Your task to perform on an android device: set the stopwatch Image 0: 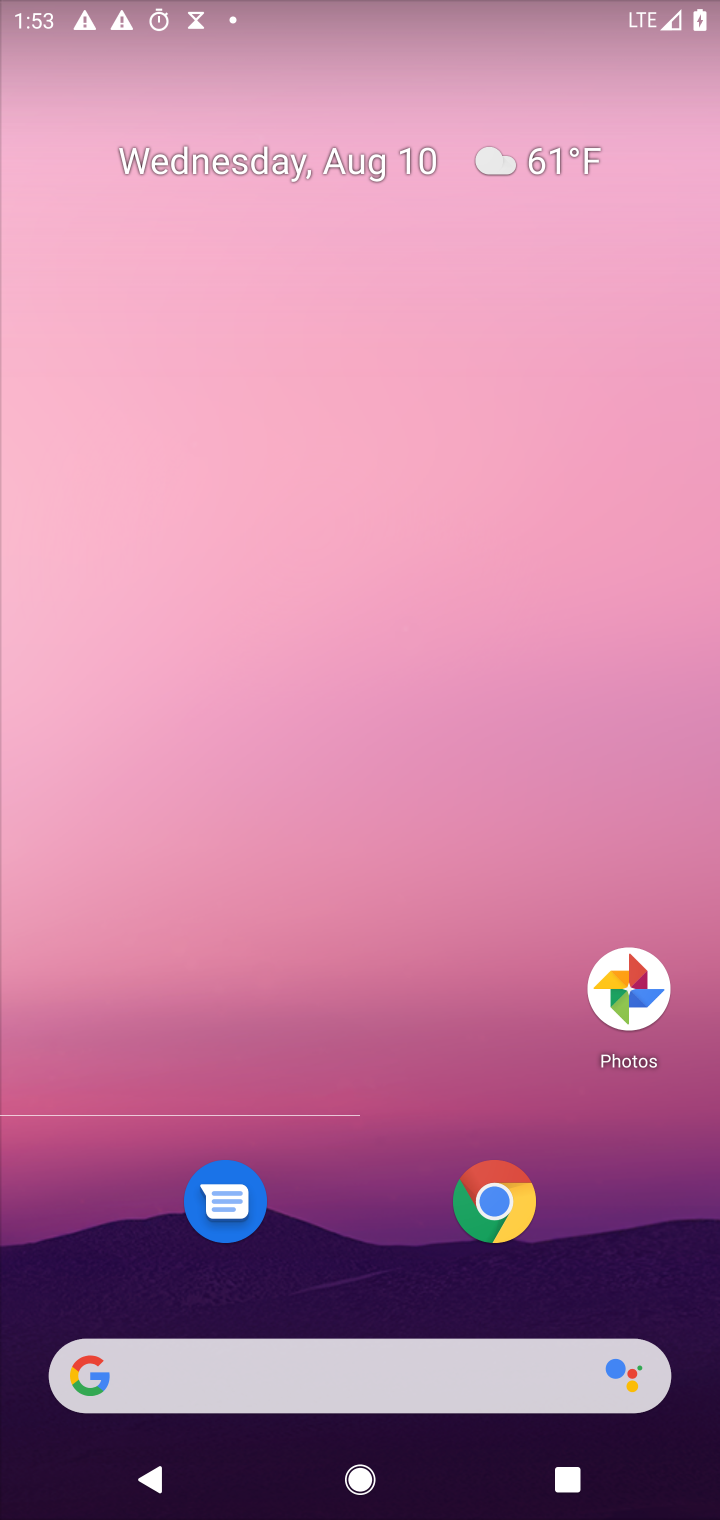
Step 0: press home button
Your task to perform on an android device: set the stopwatch Image 1: 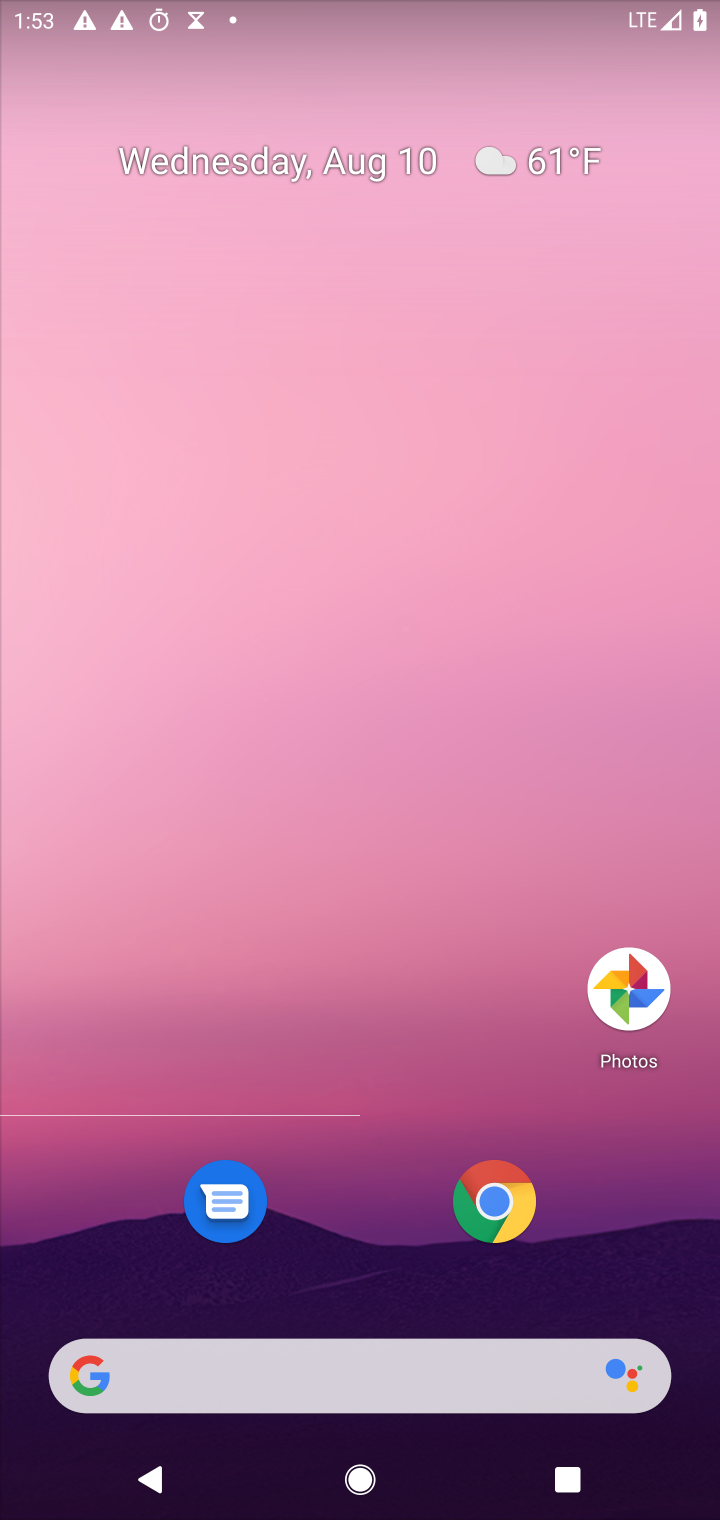
Step 1: drag from (361, 1280) to (382, 76)
Your task to perform on an android device: set the stopwatch Image 2: 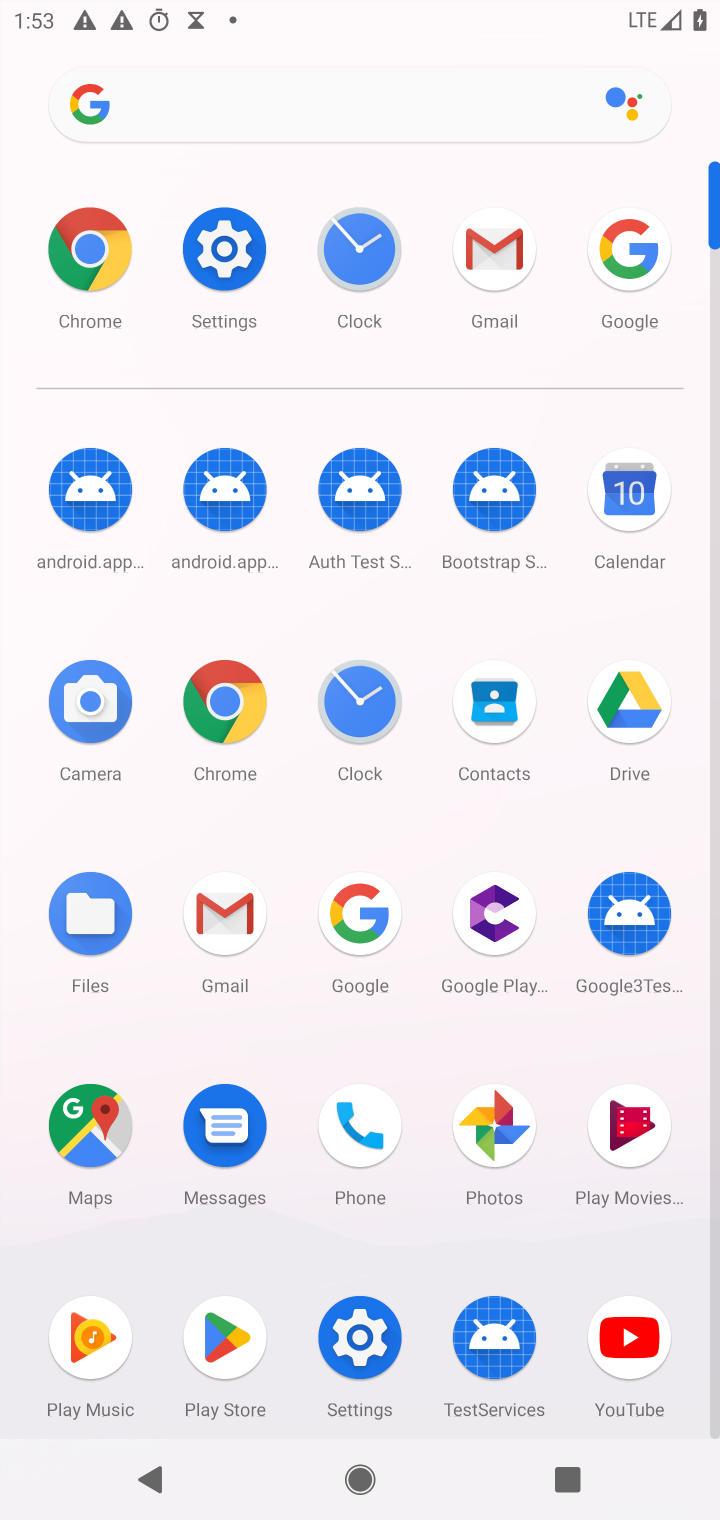
Step 2: click (359, 270)
Your task to perform on an android device: set the stopwatch Image 3: 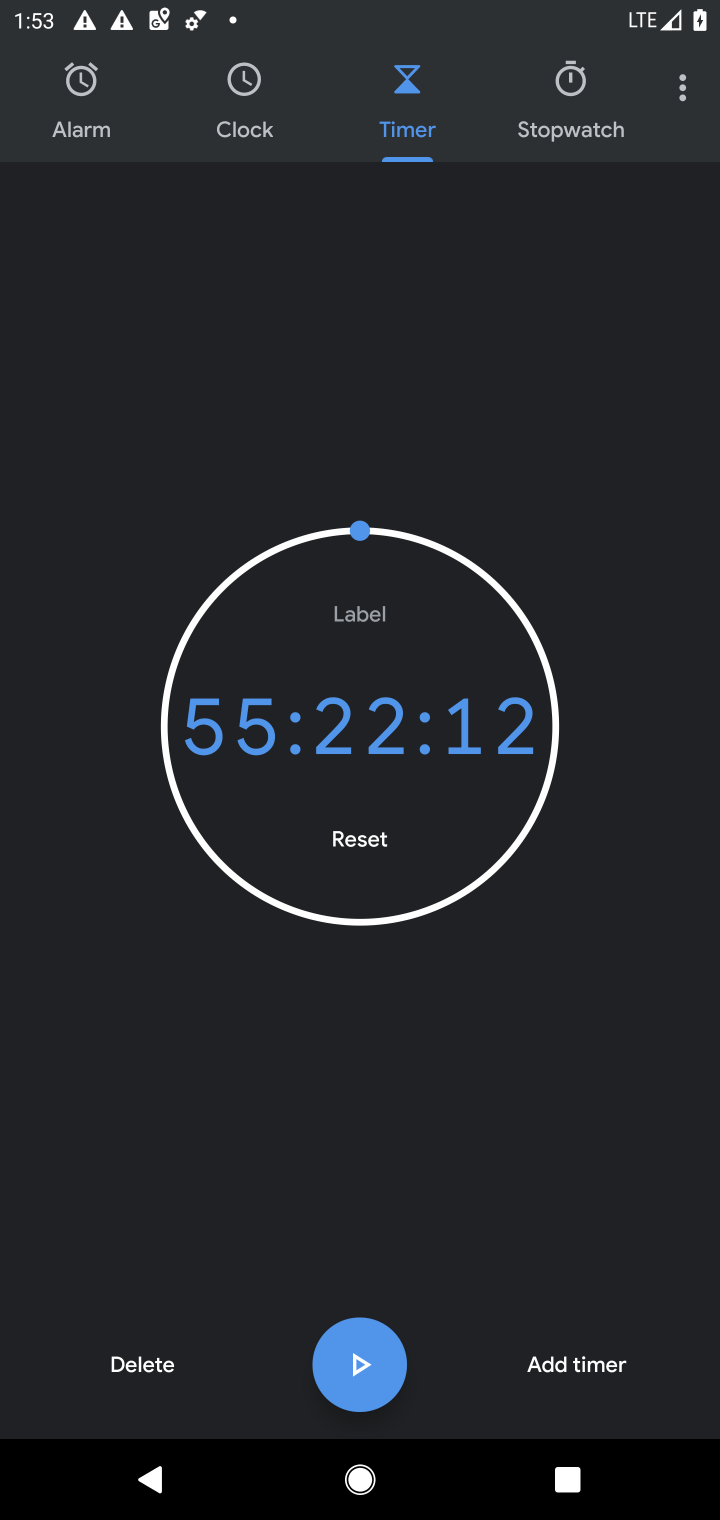
Step 3: click (554, 107)
Your task to perform on an android device: set the stopwatch Image 4: 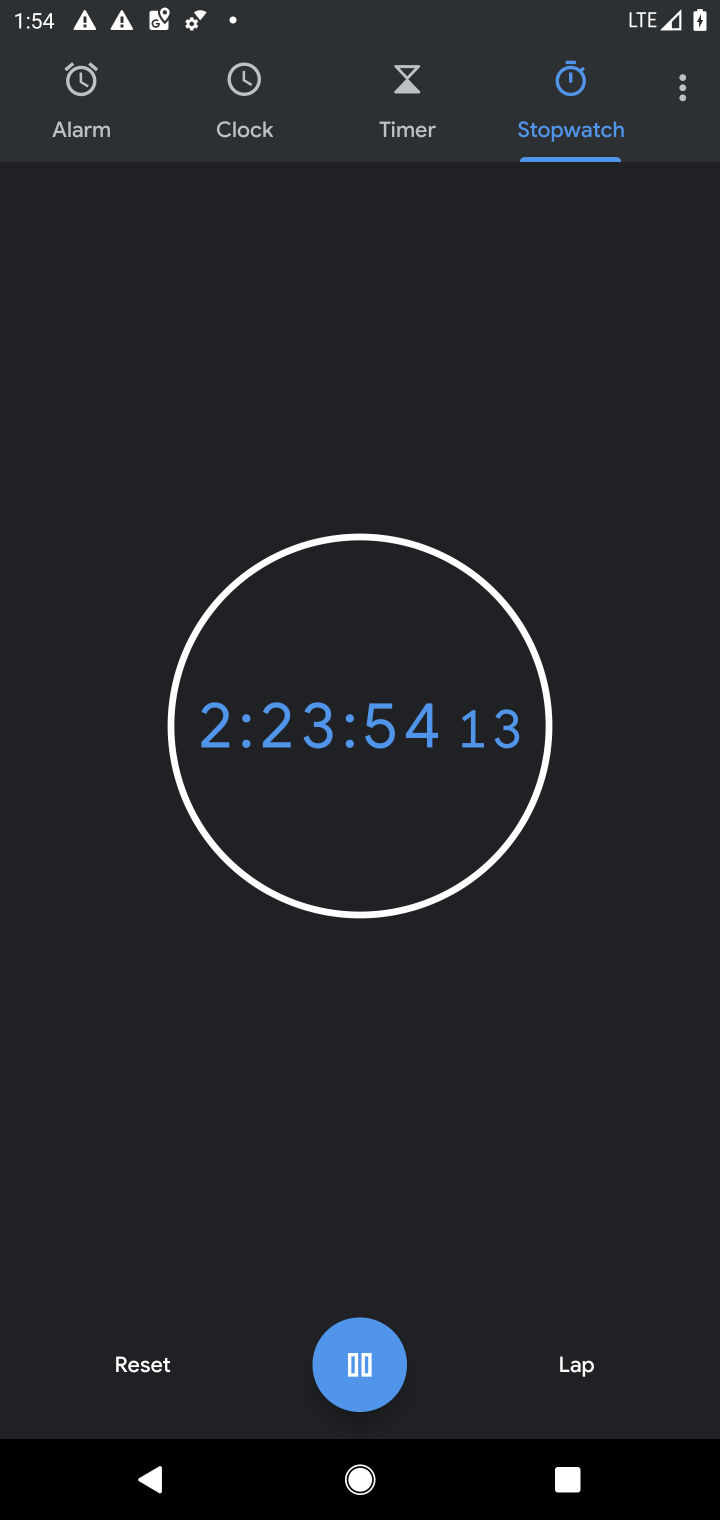
Step 4: task complete